Your task to perform on an android device: Go to Amazon Image 0: 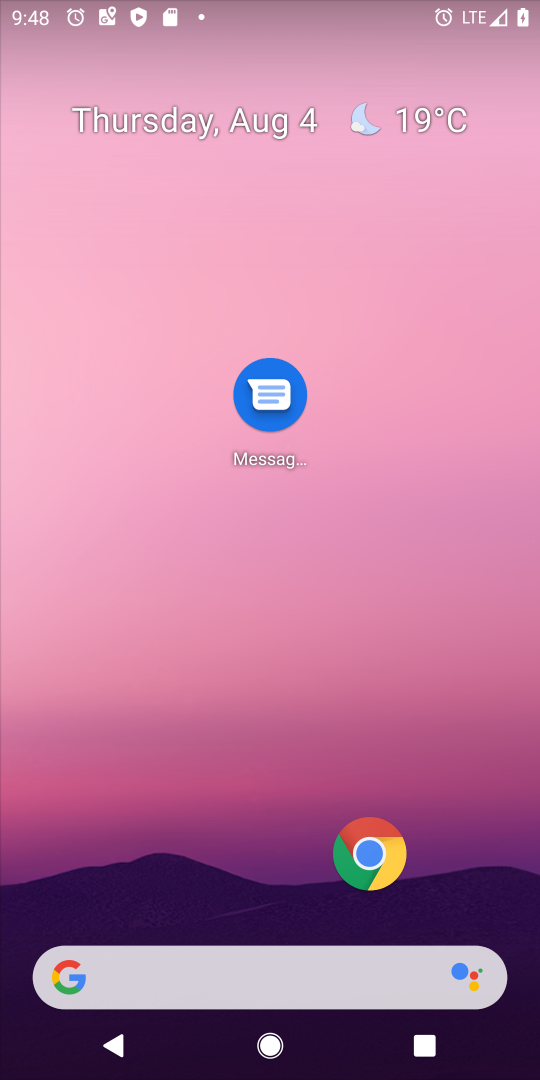
Step 0: drag from (241, 939) to (237, 459)
Your task to perform on an android device: Go to Amazon Image 1: 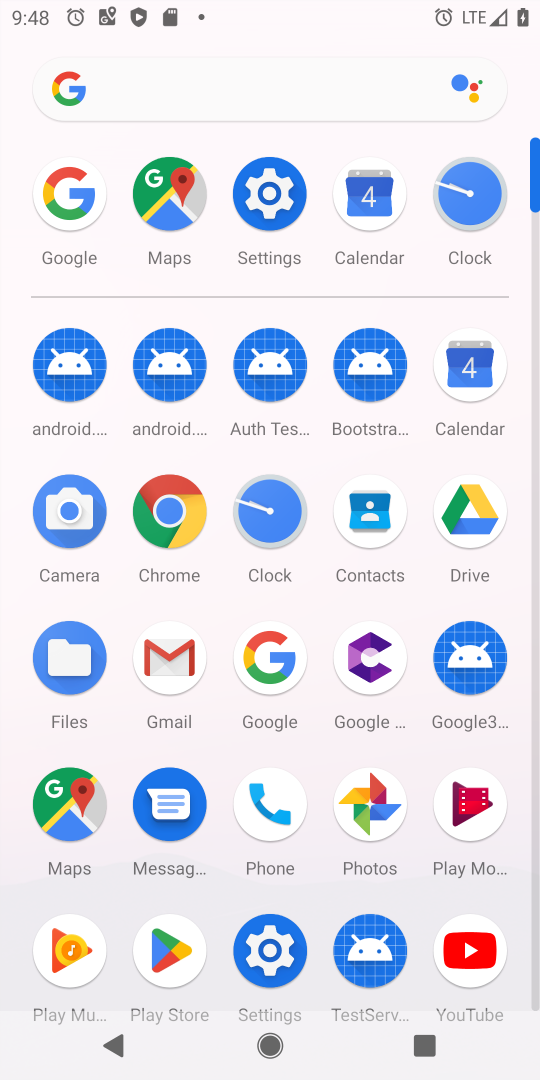
Step 1: click (246, 661)
Your task to perform on an android device: Go to Amazon Image 2: 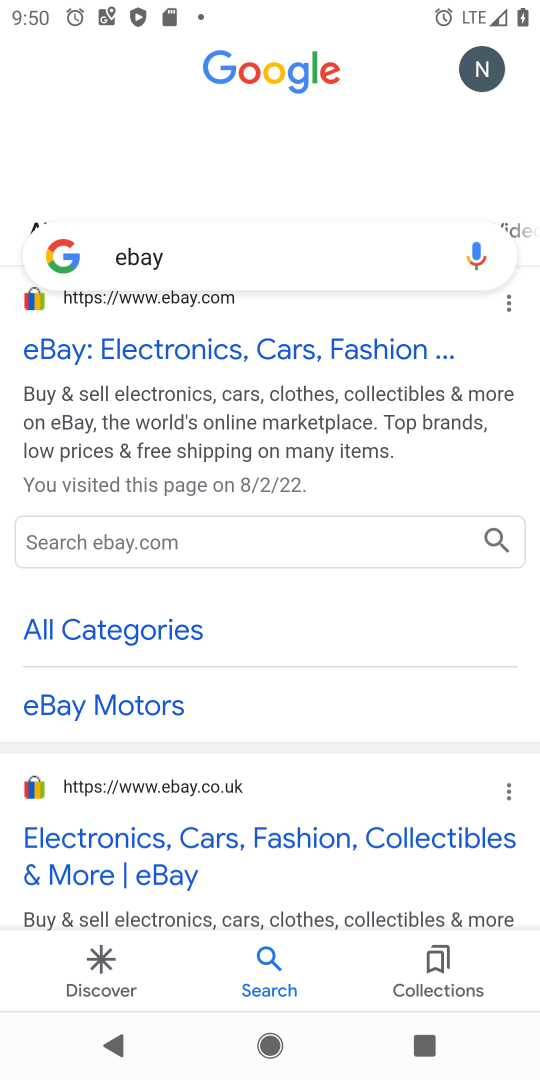
Step 2: click (240, 267)
Your task to perform on an android device: Go to Amazon Image 3: 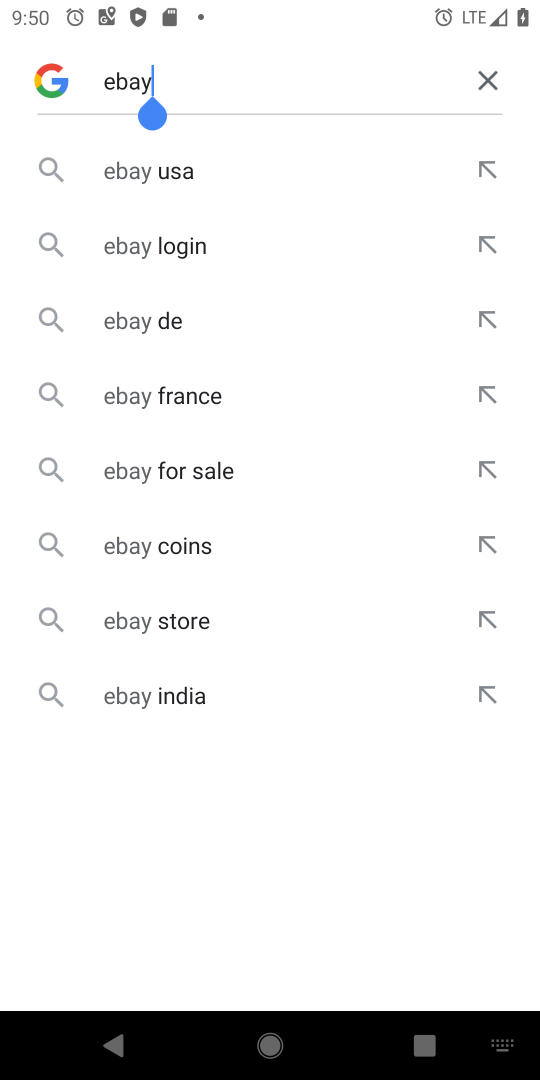
Step 3: click (496, 80)
Your task to perform on an android device: Go to Amazon Image 4: 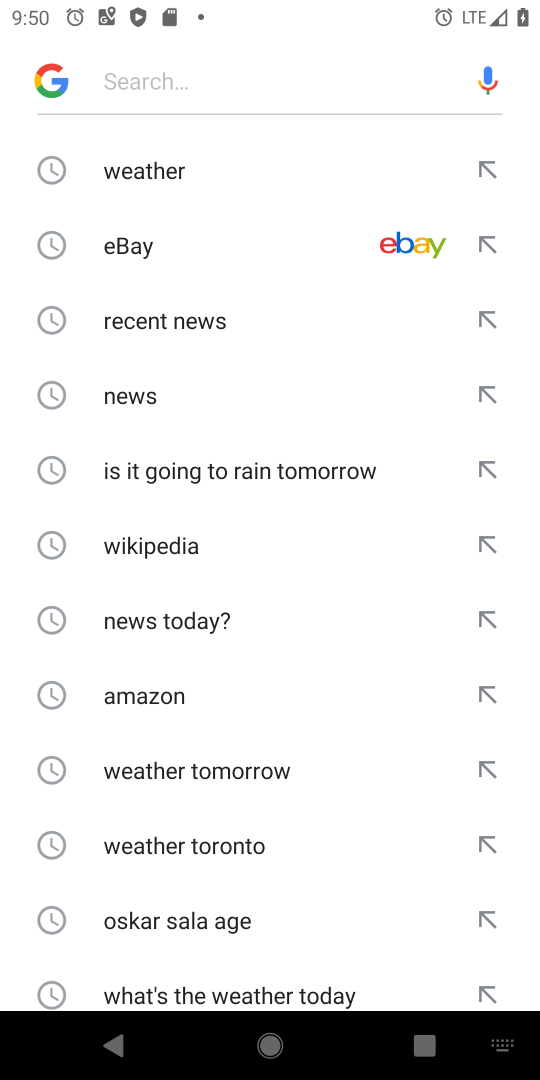
Step 4: click (188, 703)
Your task to perform on an android device: Go to Amazon Image 5: 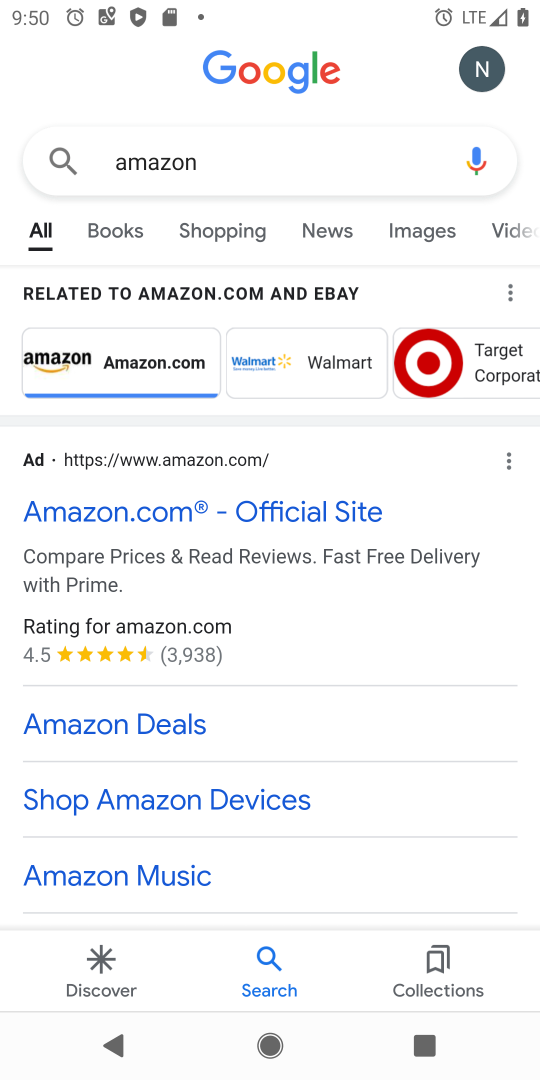
Step 5: click (176, 523)
Your task to perform on an android device: Go to Amazon Image 6: 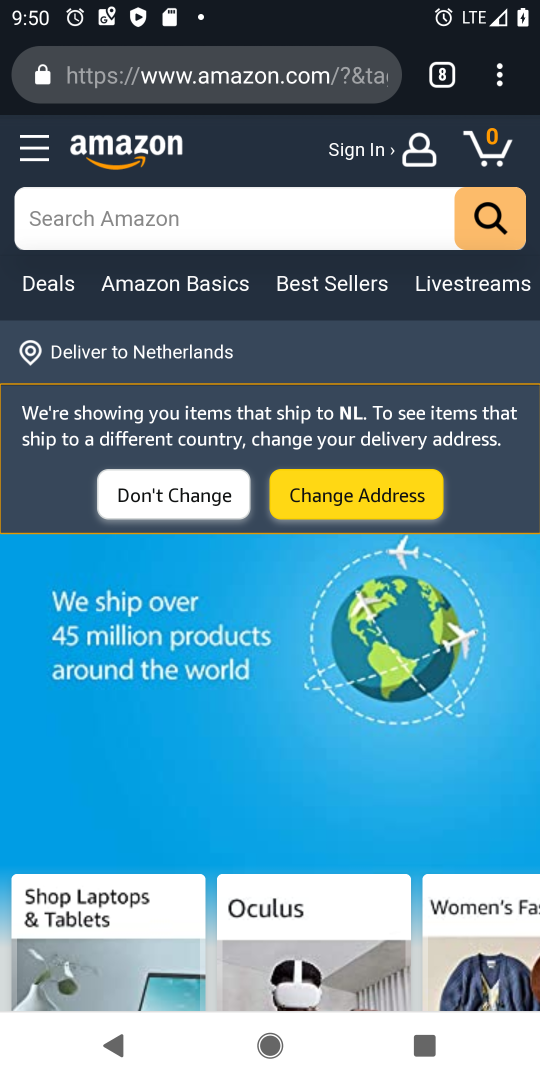
Step 6: task complete